Your task to perform on an android device: add a contact Image 0: 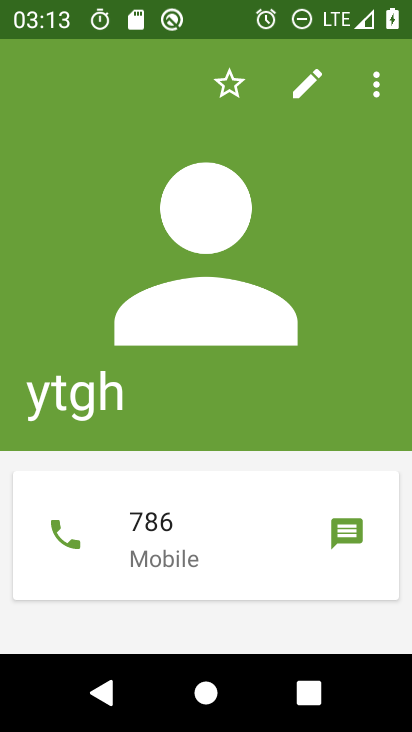
Step 0: press home button
Your task to perform on an android device: add a contact Image 1: 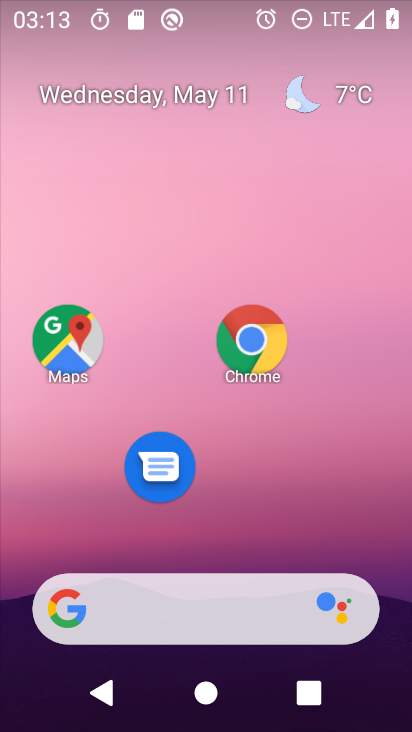
Step 1: drag from (154, 607) to (266, 92)
Your task to perform on an android device: add a contact Image 2: 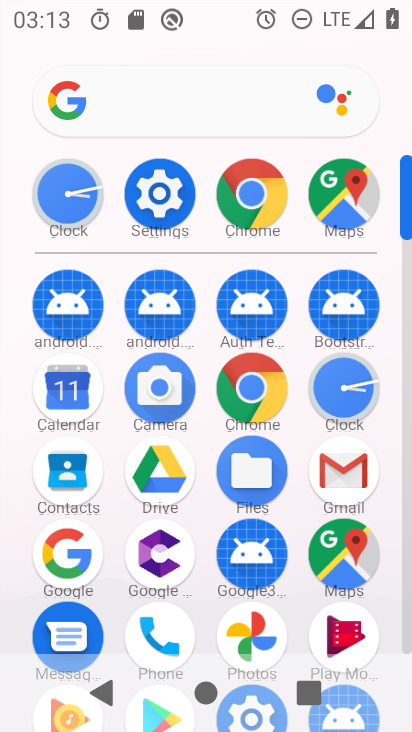
Step 2: click (67, 477)
Your task to perform on an android device: add a contact Image 3: 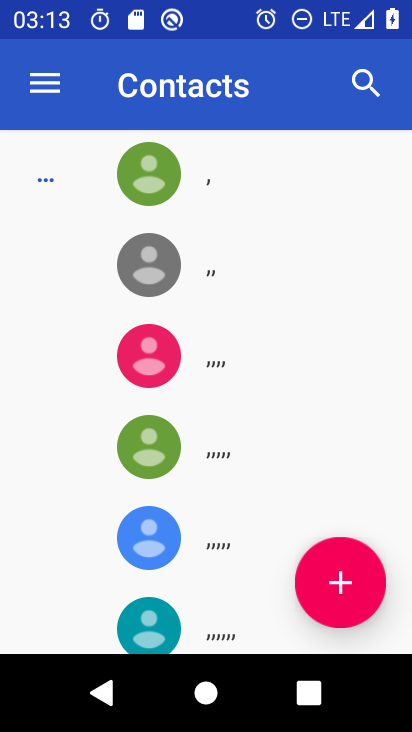
Step 3: click (325, 579)
Your task to perform on an android device: add a contact Image 4: 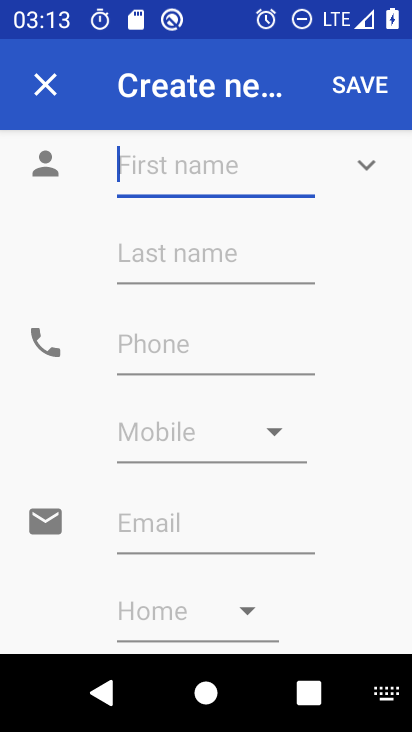
Step 4: type "cfd"
Your task to perform on an android device: add a contact Image 5: 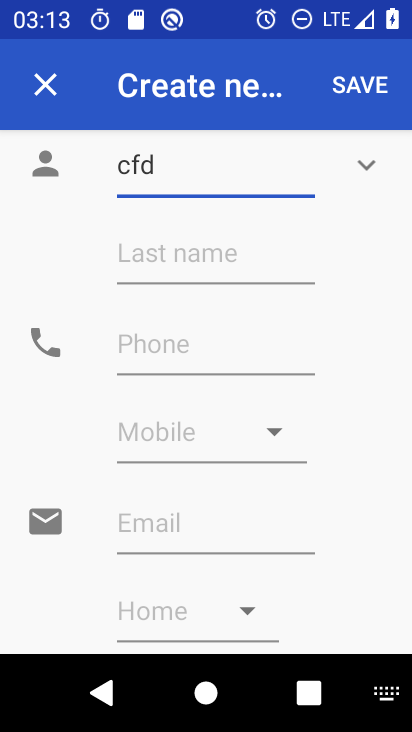
Step 5: click (152, 354)
Your task to perform on an android device: add a contact Image 6: 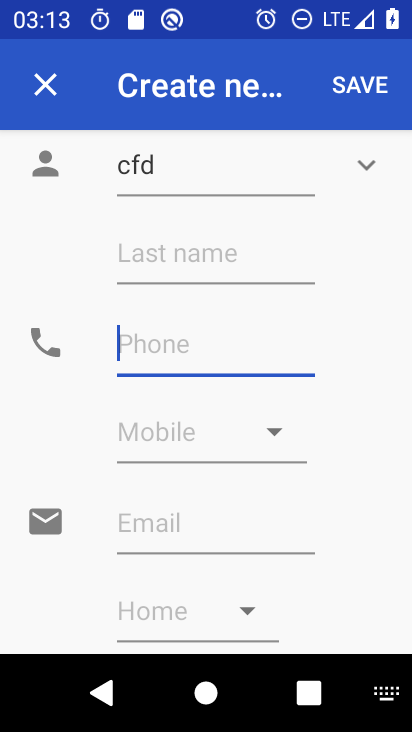
Step 6: type "234323"
Your task to perform on an android device: add a contact Image 7: 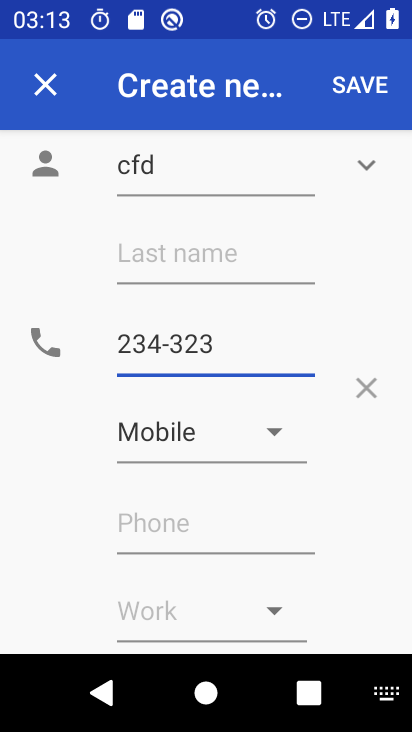
Step 7: click (360, 78)
Your task to perform on an android device: add a contact Image 8: 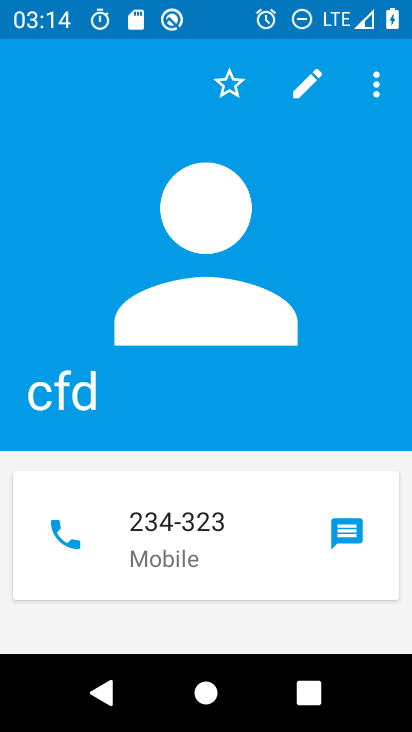
Step 8: task complete